Your task to perform on an android device: turn on javascript in the chrome app Image 0: 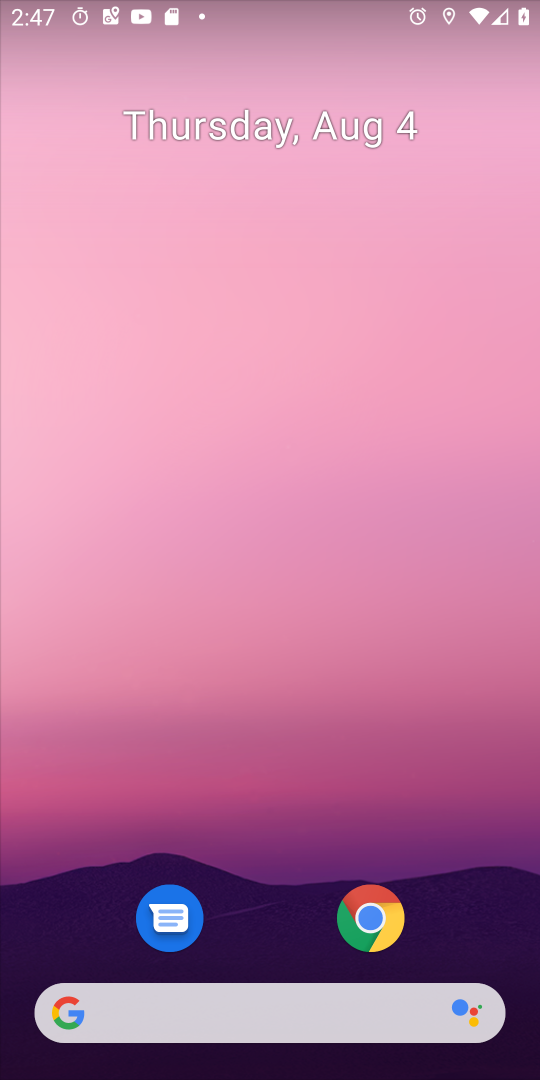
Step 0: click (361, 900)
Your task to perform on an android device: turn on javascript in the chrome app Image 1: 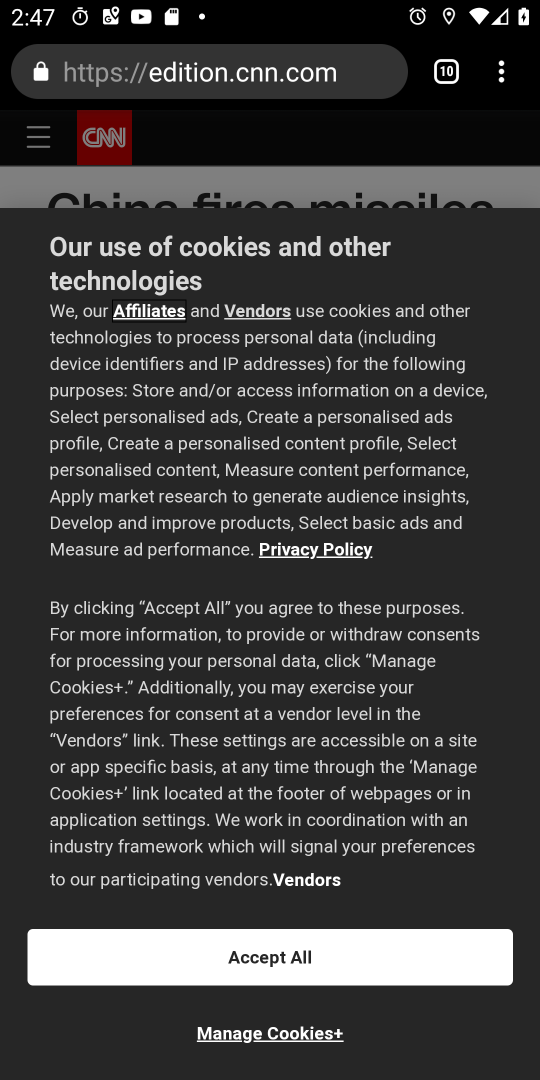
Step 1: click (503, 66)
Your task to perform on an android device: turn on javascript in the chrome app Image 2: 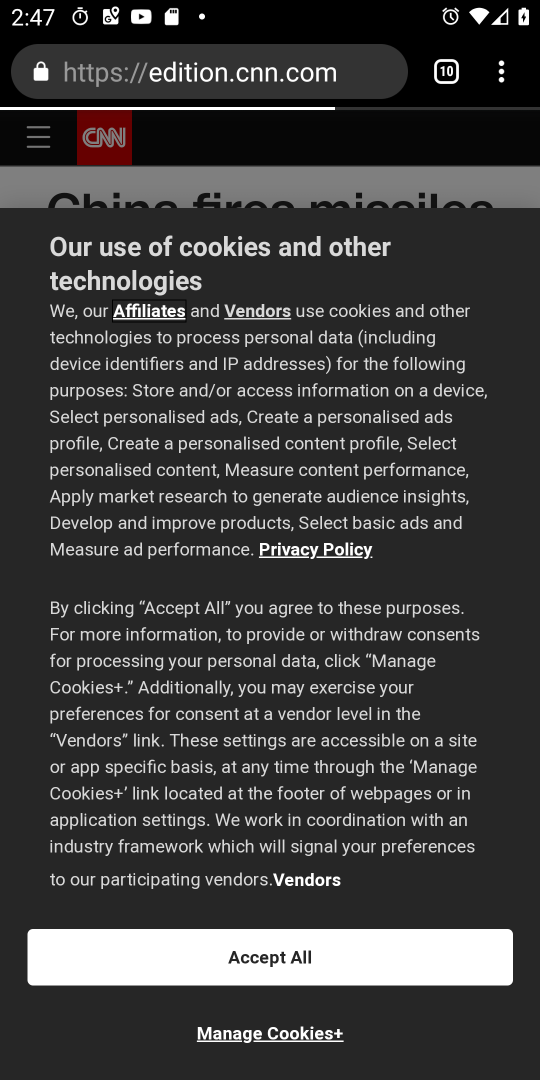
Step 2: drag from (503, 66) to (262, 793)
Your task to perform on an android device: turn on javascript in the chrome app Image 3: 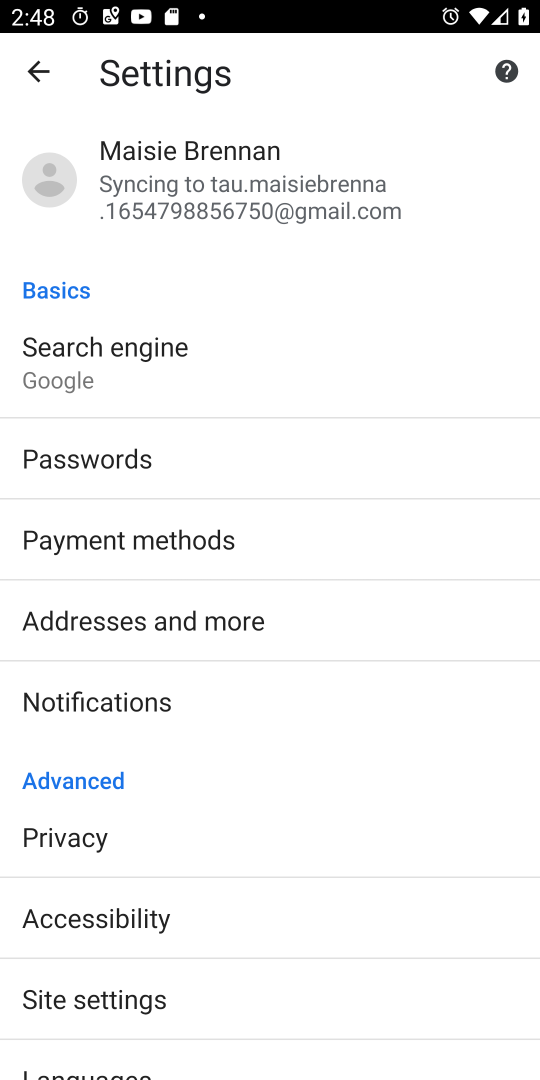
Step 3: drag from (234, 944) to (250, 496)
Your task to perform on an android device: turn on javascript in the chrome app Image 4: 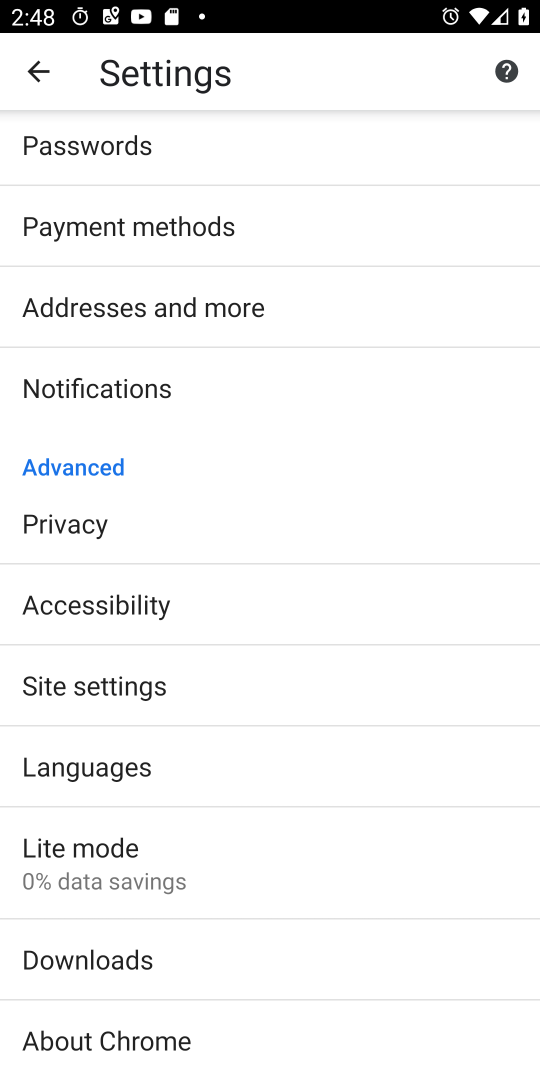
Step 4: click (176, 703)
Your task to perform on an android device: turn on javascript in the chrome app Image 5: 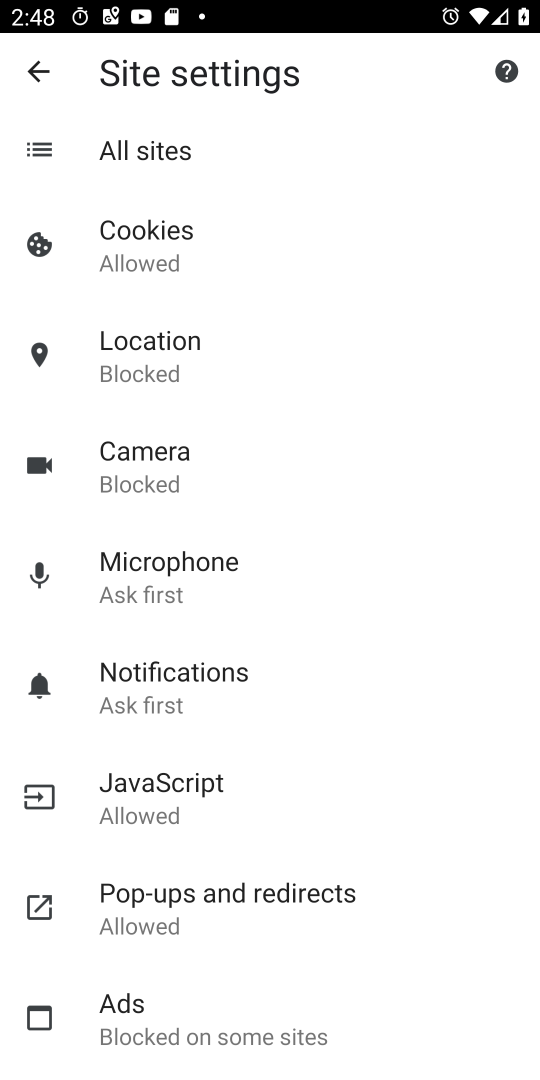
Step 5: click (217, 797)
Your task to perform on an android device: turn on javascript in the chrome app Image 6: 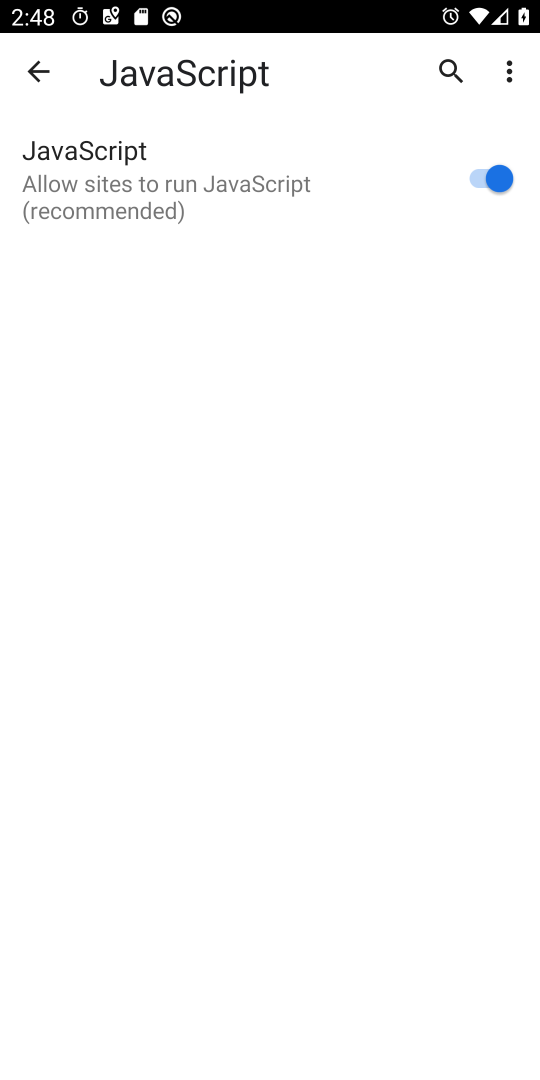
Step 6: task complete